Your task to perform on an android device: turn on bluetooth scan Image 0: 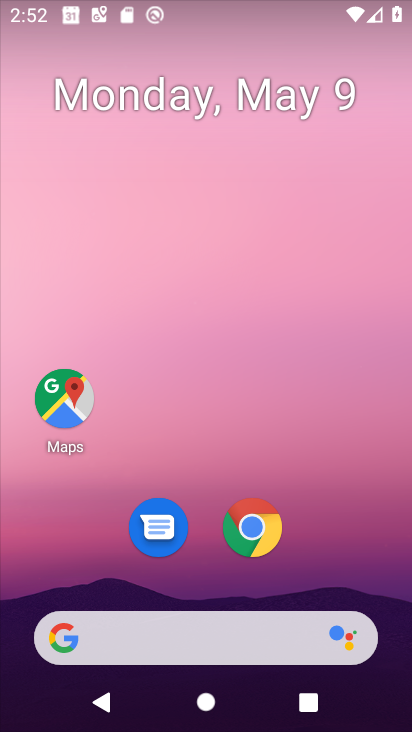
Step 0: drag from (290, 597) to (283, 84)
Your task to perform on an android device: turn on bluetooth scan Image 1: 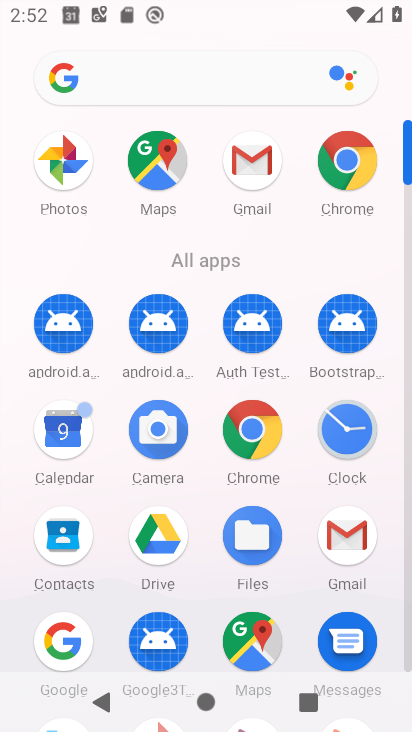
Step 1: drag from (245, 344) to (247, 150)
Your task to perform on an android device: turn on bluetooth scan Image 2: 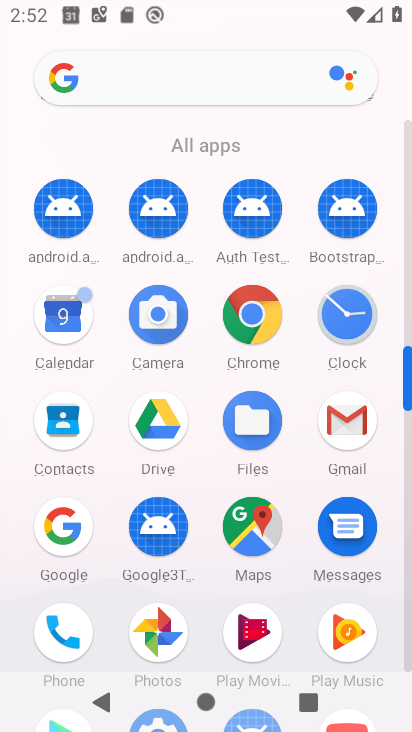
Step 2: drag from (154, 573) to (185, 189)
Your task to perform on an android device: turn on bluetooth scan Image 3: 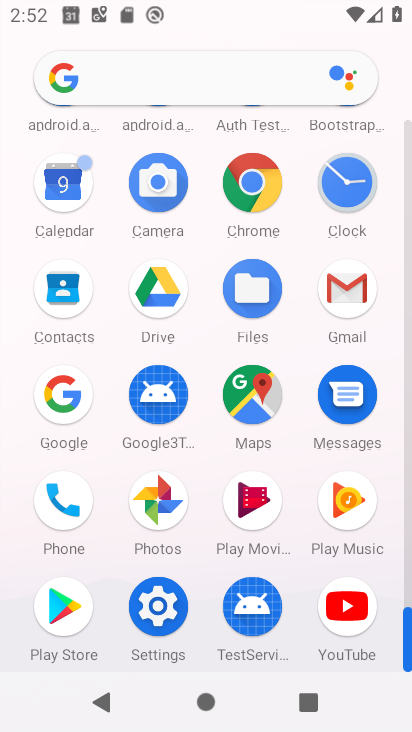
Step 3: click (191, 613)
Your task to perform on an android device: turn on bluetooth scan Image 4: 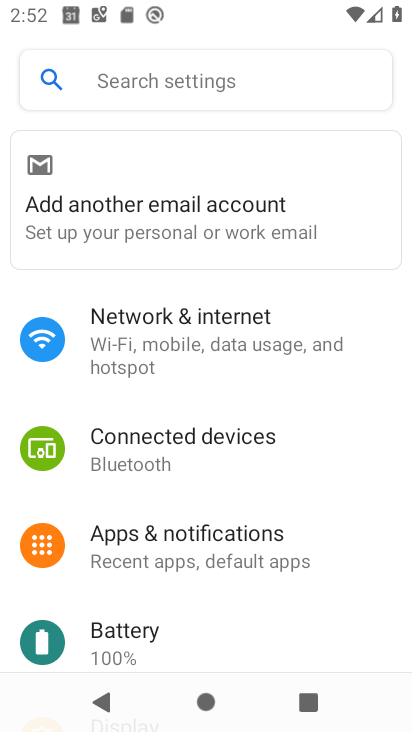
Step 4: click (216, 439)
Your task to perform on an android device: turn on bluetooth scan Image 5: 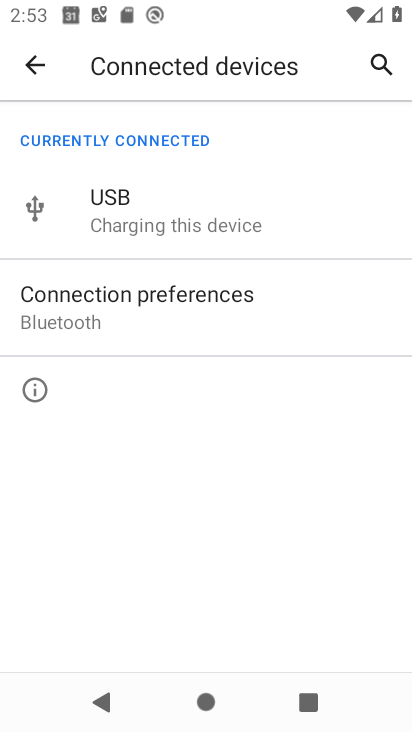
Step 5: click (233, 325)
Your task to perform on an android device: turn on bluetooth scan Image 6: 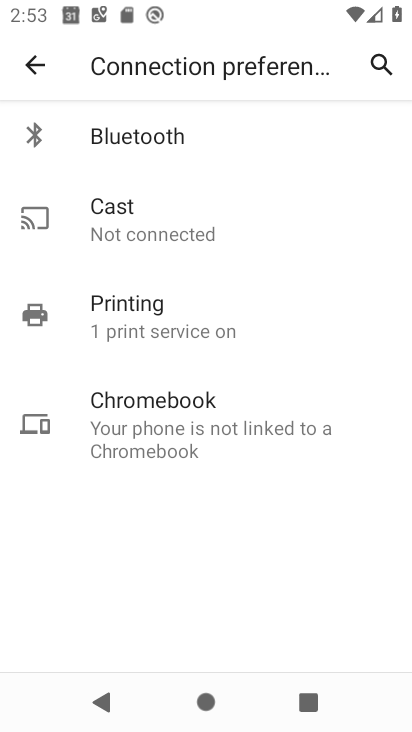
Step 6: click (225, 139)
Your task to perform on an android device: turn on bluetooth scan Image 7: 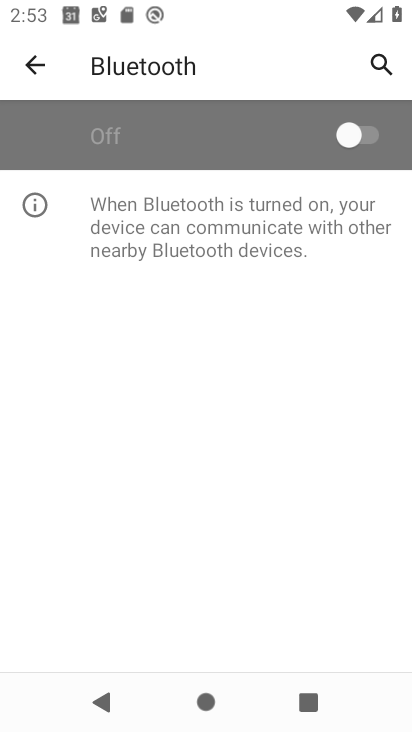
Step 7: task complete